Your task to perform on an android device: Open ESPN.com Image 0: 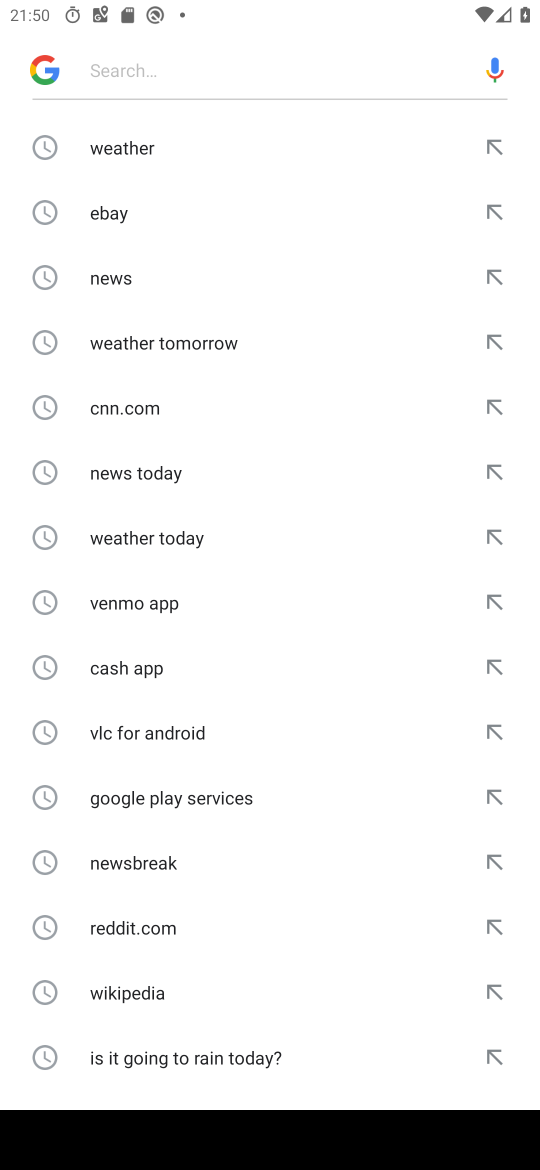
Step 0: press back button
Your task to perform on an android device: Open ESPN.com Image 1: 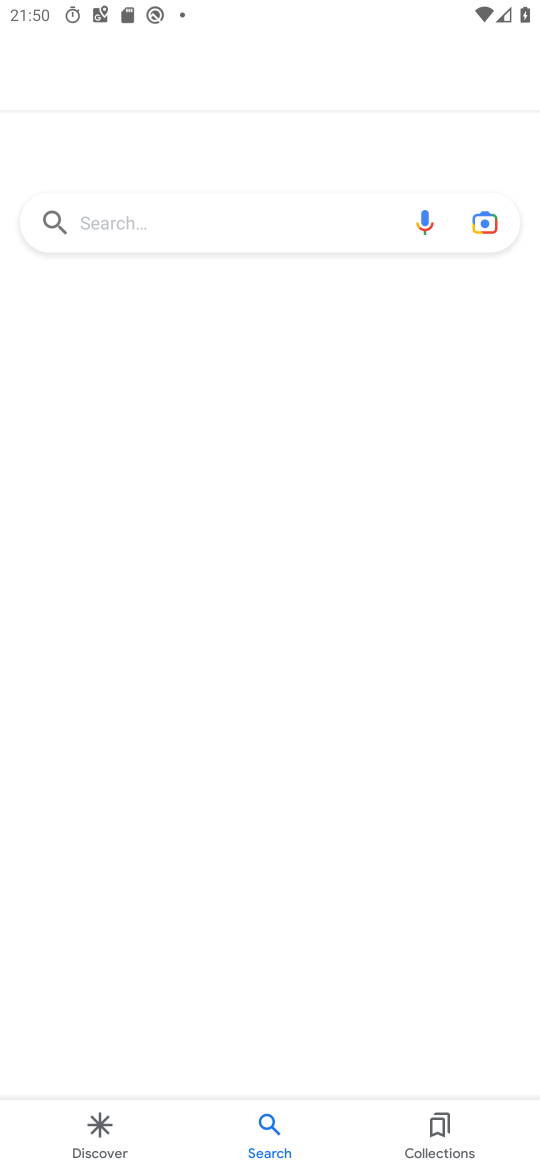
Step 1: press back button
Your task to perform on an android device: Open ESPN.com Image 2: 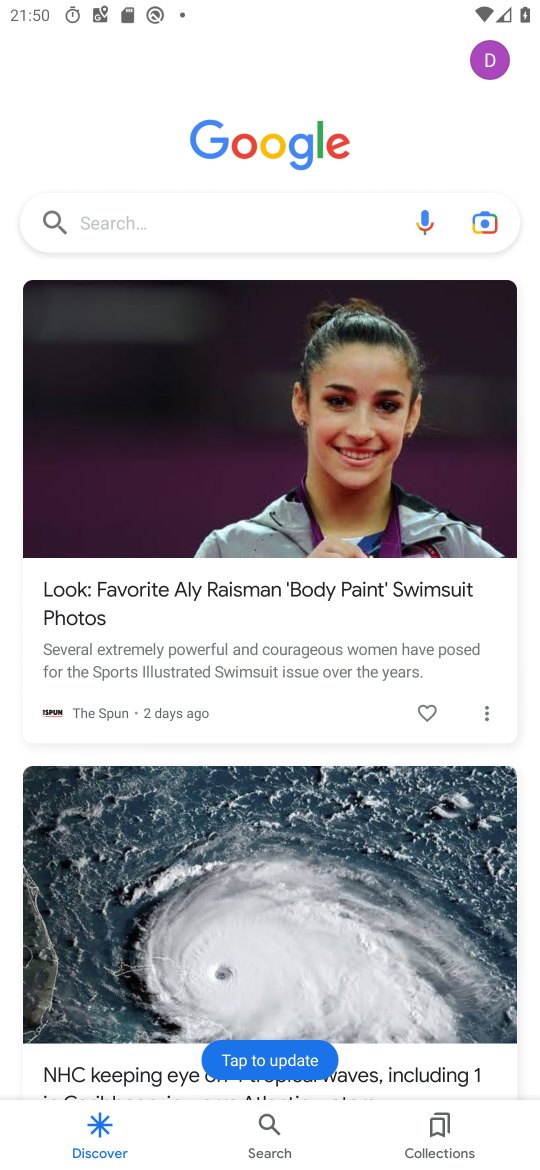
Step 2: press home button
Your task to perform on an android device: Open ESPN.com Image 3: 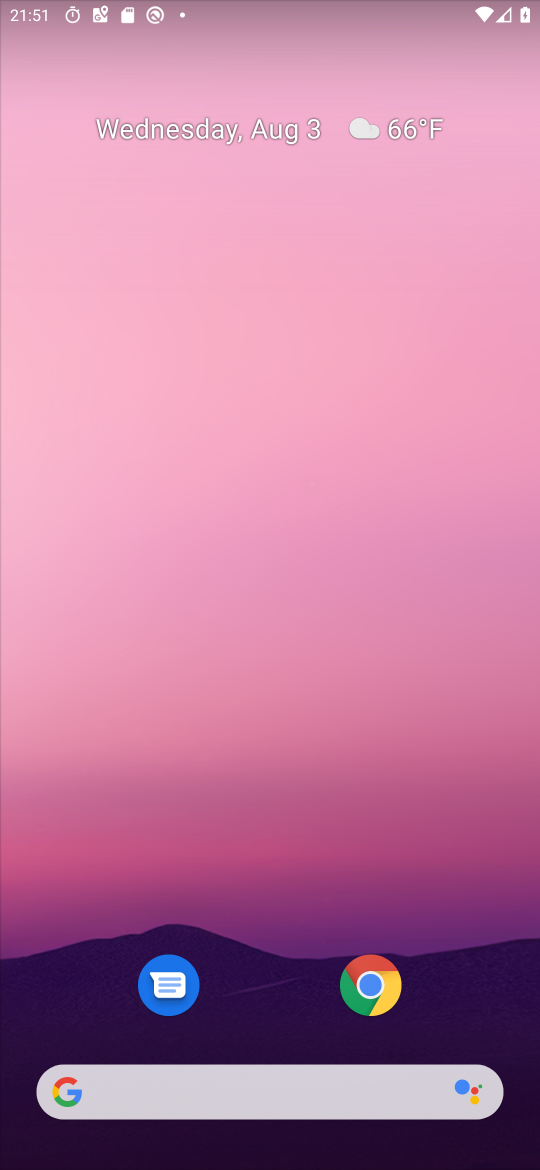
Step 3: click (354, 986)
Your task to perform on an android device: Open ESPN.com Image 4: 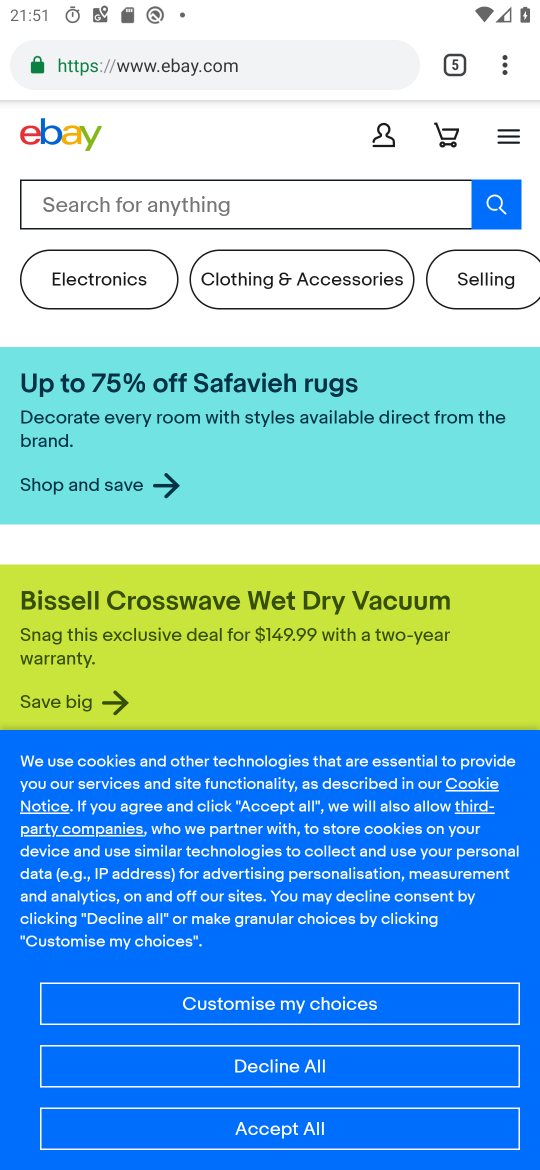
Step 4: click (442, 57)
Your task to perform on an android device: Open ESPN.com Image 5: 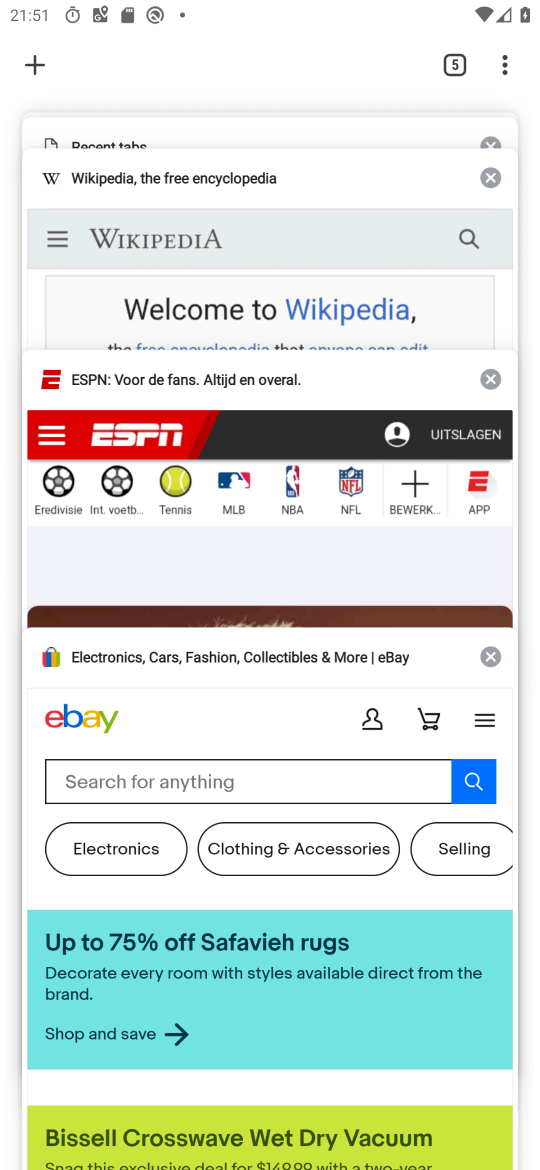
Step 5: click (182, 431)
Your task to perform on an android device: Open ESPN.com Image 6: 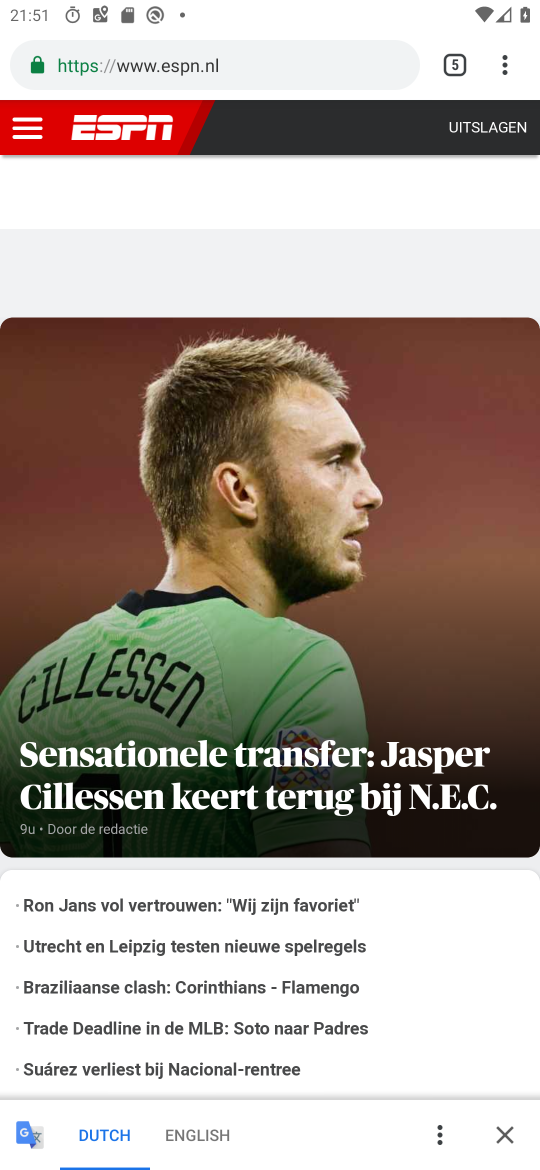
Step 6: task complete